Your task to perform on an android device: set the timer Image 0: 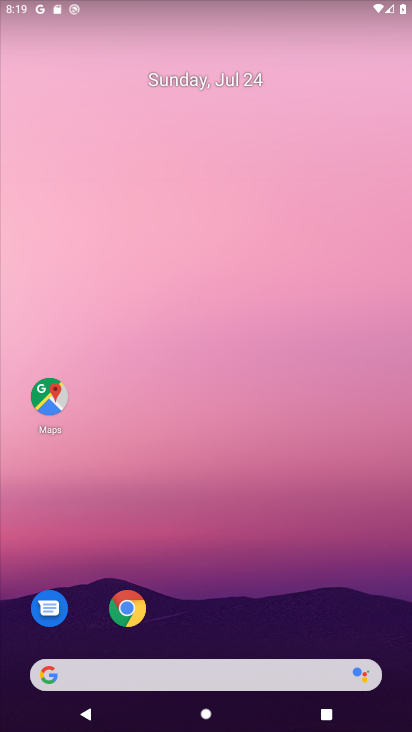
Step 0: drag from (243, 638) to (250, 309)
Your task to perform on an android device: set the timer Image 1: 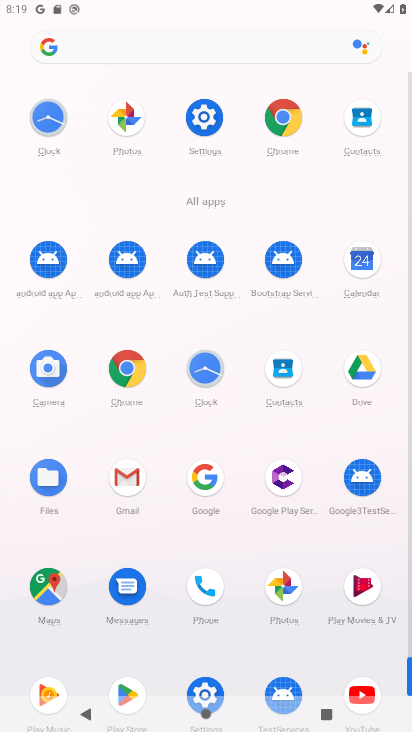
Step 1: click (199, 388)
Your task to perform on an android device: set the timer Image 2: 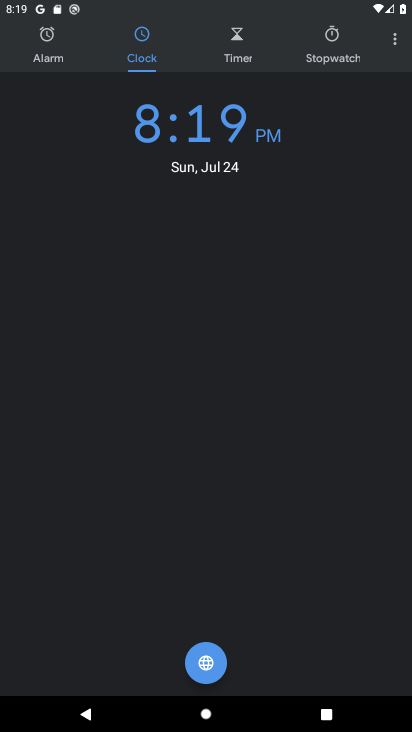
Step 2: click (261, 64)
Your task to perform on an android device: set the timer Image 3: 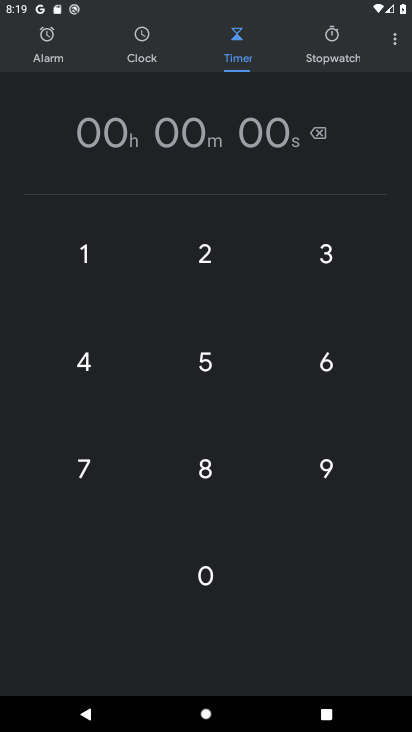
Step 3: click (192, 483)
Your task to perform on an android device: set the timer Image 4: 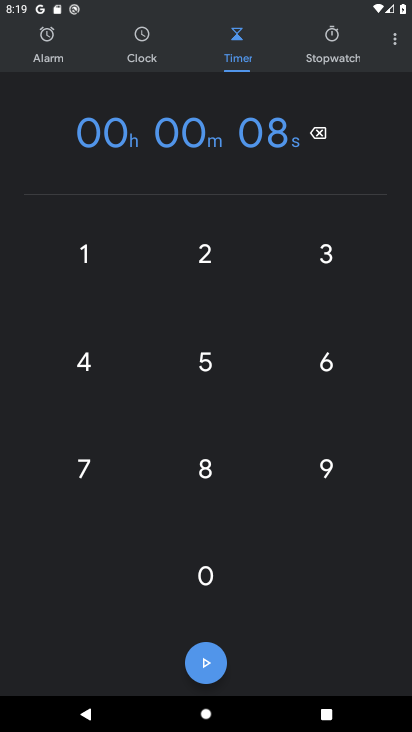
Step 4: click (198, 655)
Your task to perform on an android device: set the timer Image 5: 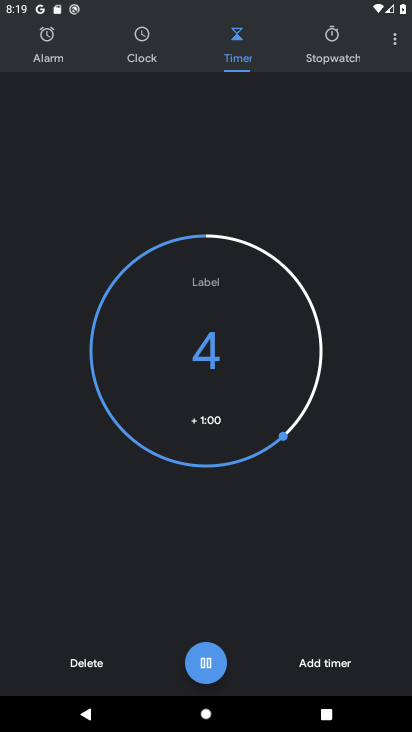
Step 5: task complete